Your task to perform on an android device: allow cookies in the chrome app Image 0: 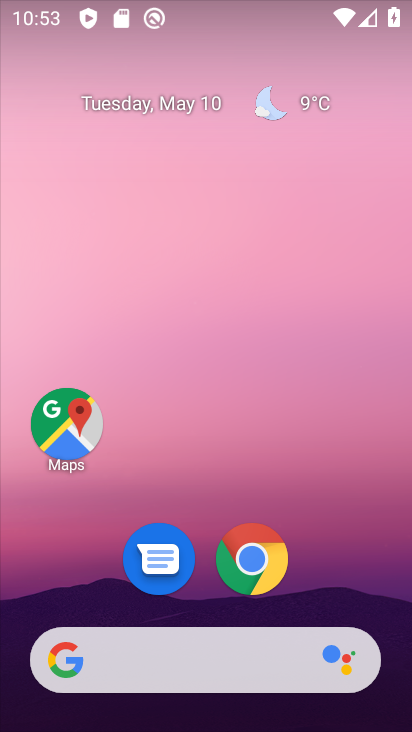
Step 0: click (276, 552)
Your task to perform on an android device: allow cookies in the chrome app Image 1: 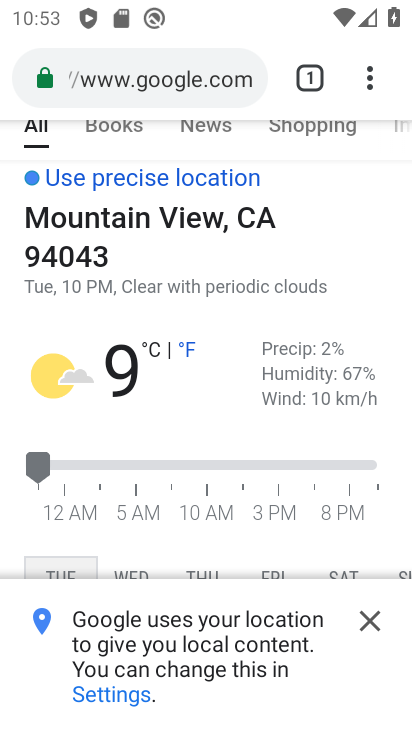
Step 1: drag from (364, 80) to (197, 639)
Your task to perform on an android device: allow cookies in the chrome app Image 2: 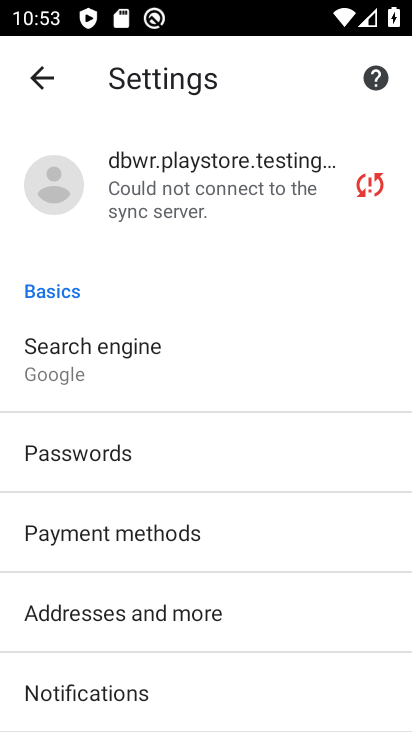
Step 2: drag from (238, 329) to (240, 249)
Your task to perform on an android device: allow cookies in the chrome app Image 3: 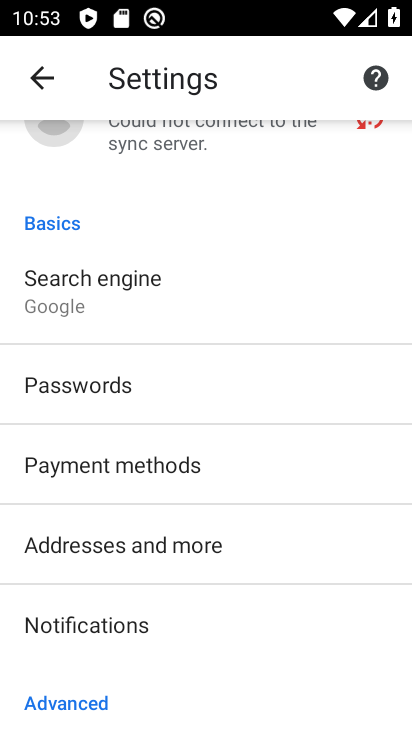
Step 3: drag from (264, 648) to (252, 355)
Your task to perform on an android device: allow cookies in the chrome app Image 4: 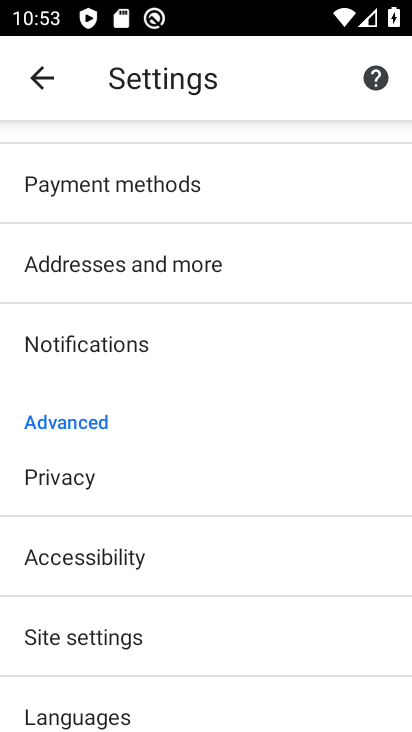
Step 4: click (219, 624)
Your task to perform on an android device: allow cookies in the chrome app Image 5: 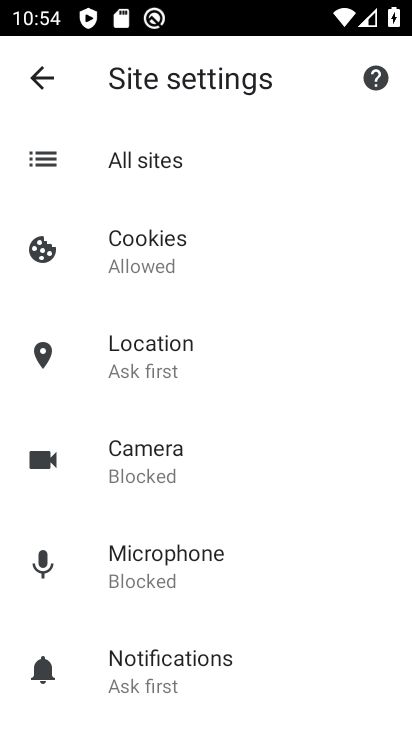
Step 5: click (147, 297)
Your task to perform on an android device: allow cookies in the chrome app Image 6: 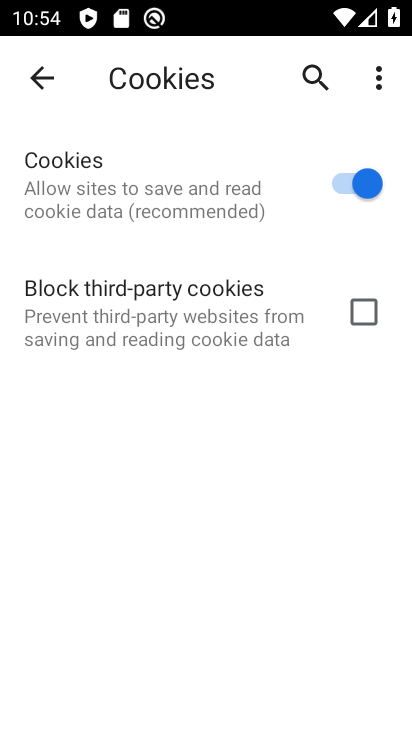
Step 6: task complete